Your task to perform on an android device: toggle location history Image 0: 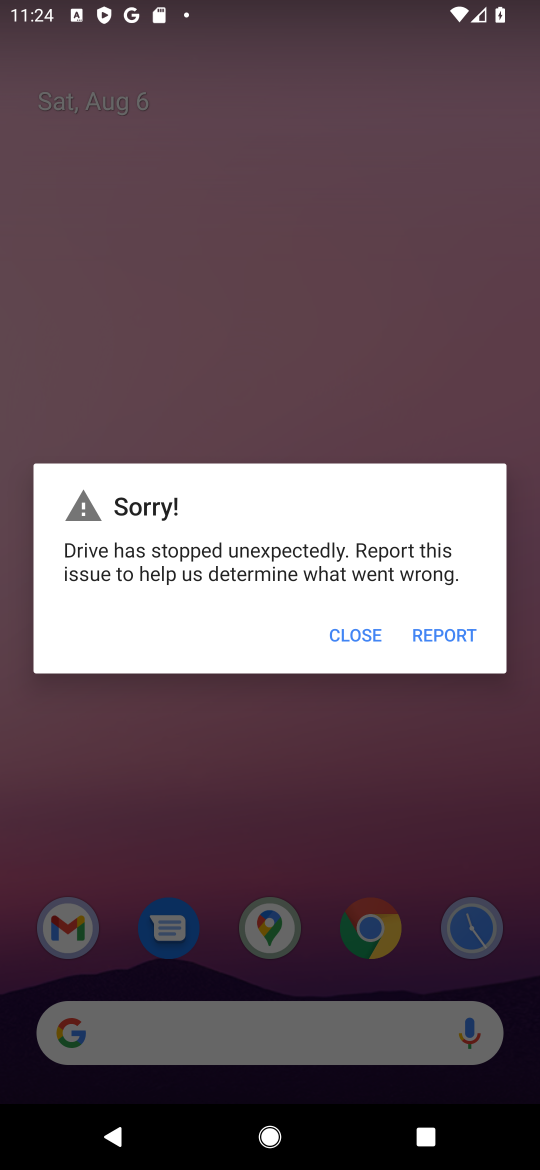
Step 0: click (358, 631)
Your task to perform on an android device: toggle location history Image 1: 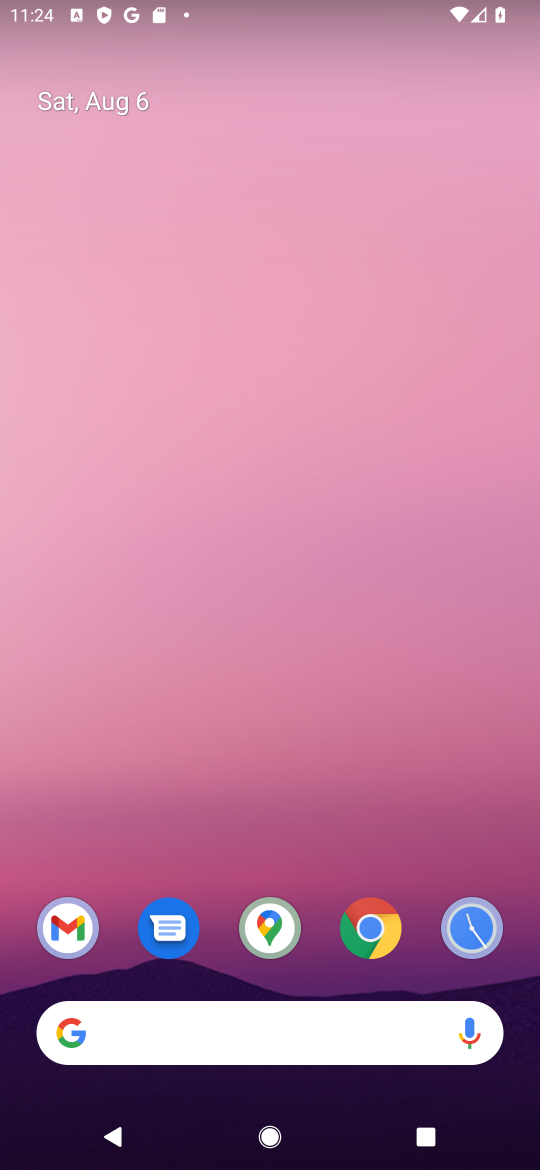
Step 1: drag from (268, 847) to (212, 87)
Your task to perform on an android device: toggle location history Image 2: 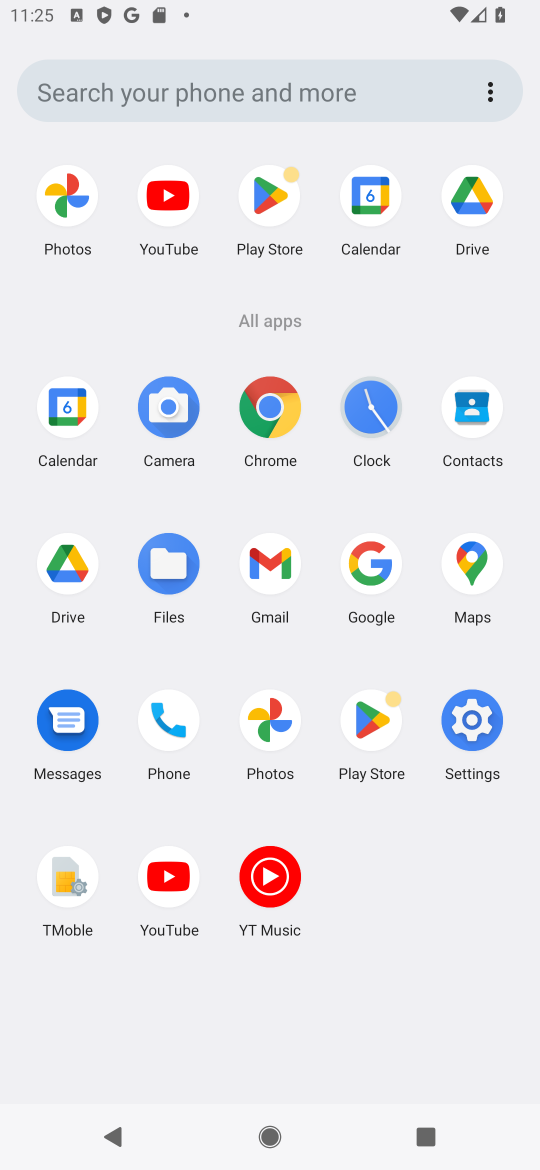
Step 2: click (459, 723)
Your task to perform on an android device: toggle location history Image 3: 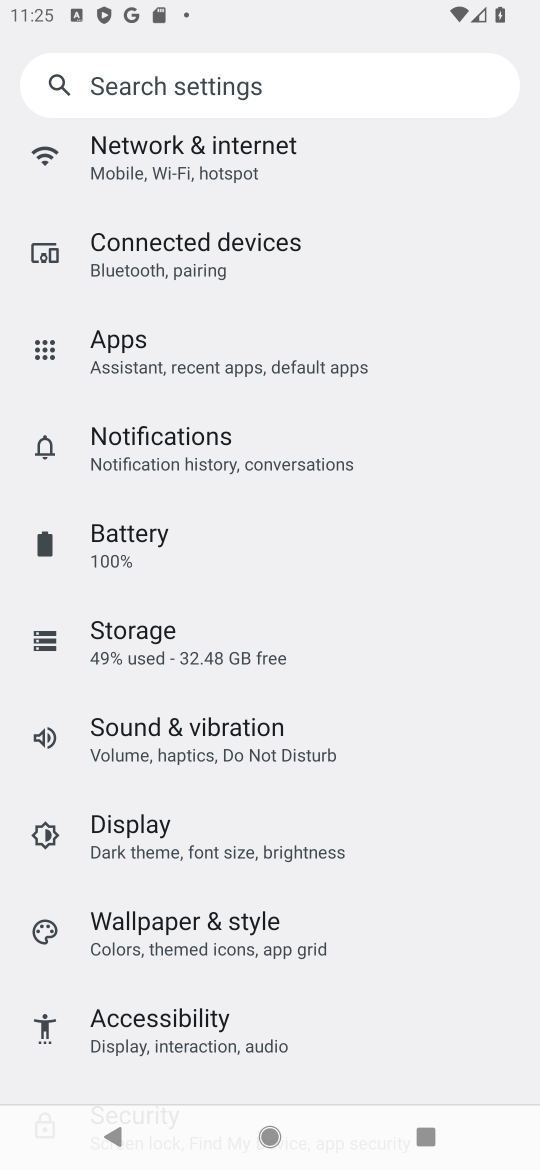
Step 3: drag from (405, 625) to (388, 306)
Your task to perform on an android device: toggle location history Image 4: 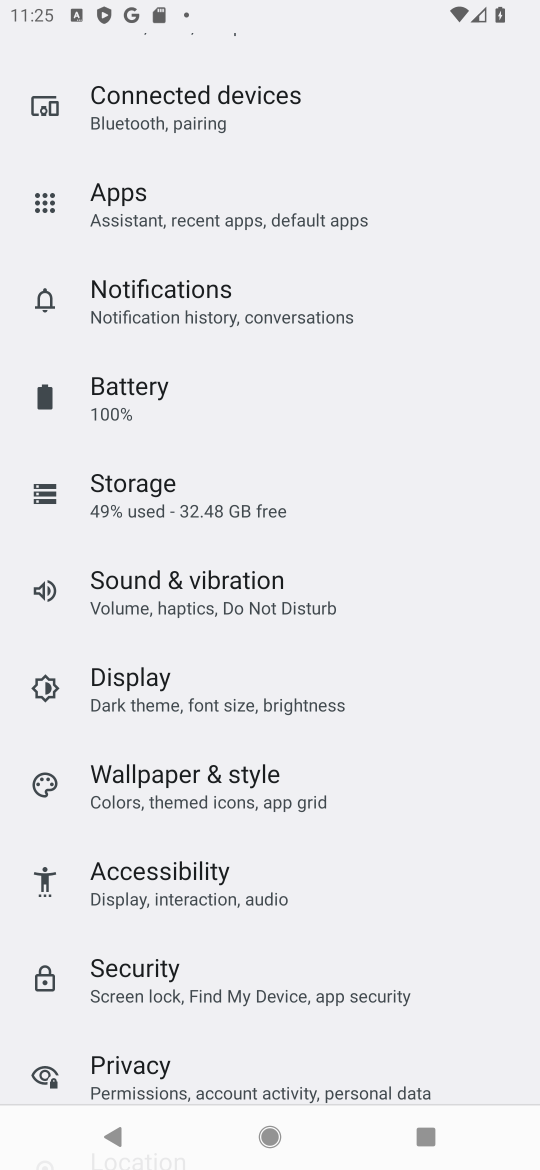
Step 4: drag from (352, 870) to (349, 494)
Your task to perform on an android device: toggle location history Image 5: 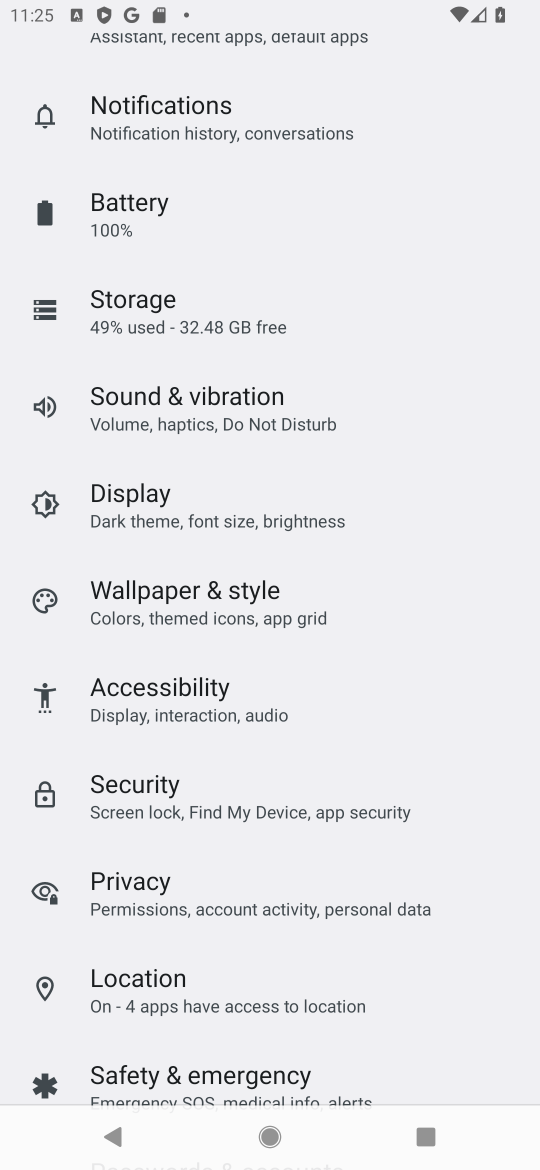
Step 5: click (145, 971)
Your task to perform on an android device: toggle location history Image 6: 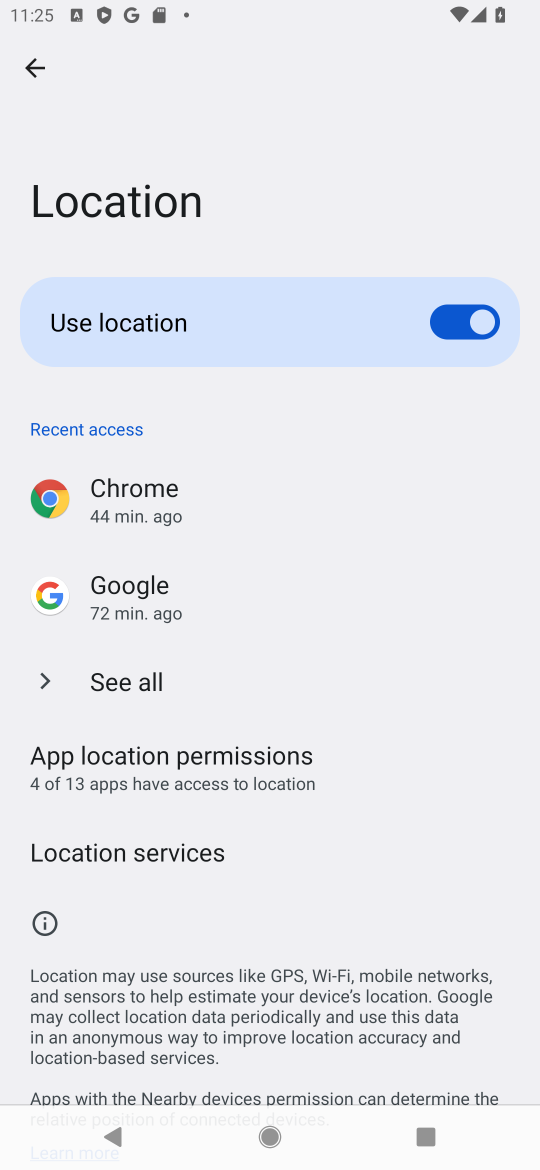
Step 6: click (145, 971)
Your task to perform on an android device: toggle location history Image 7: 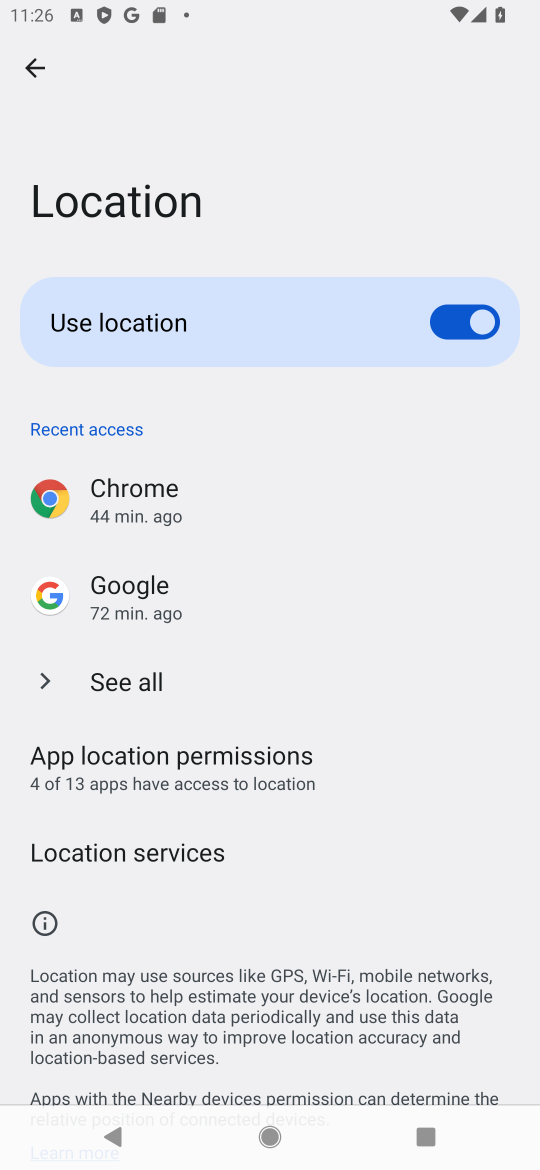
Step 7: click (466, 323)
Your task to perform on an android device: toggle location history Image 8: 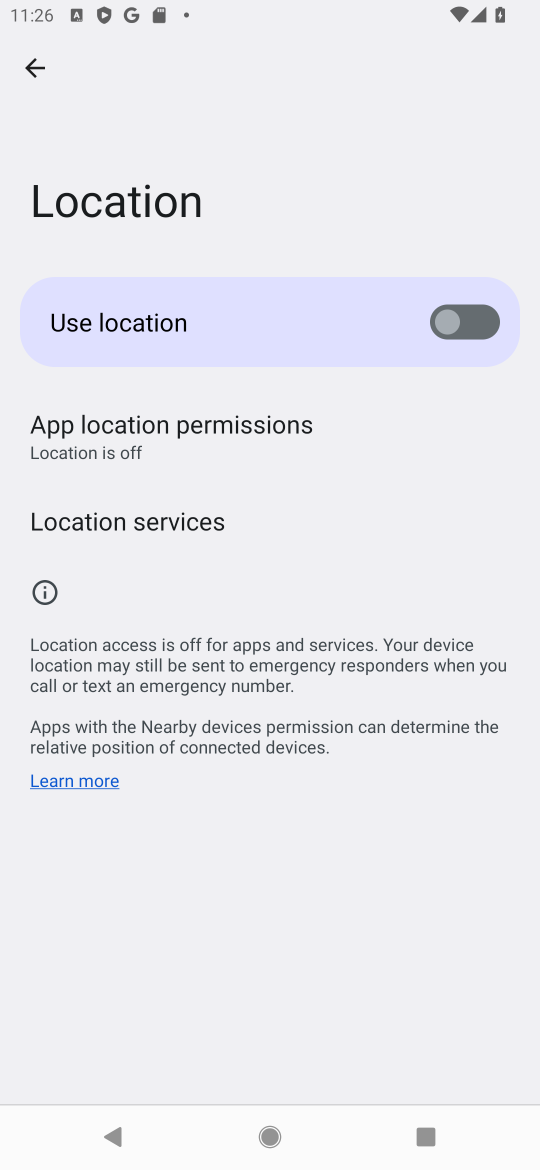
Step 8: task complete